Your task to perform on an android device: snooze an email in the gmail app Image 0: 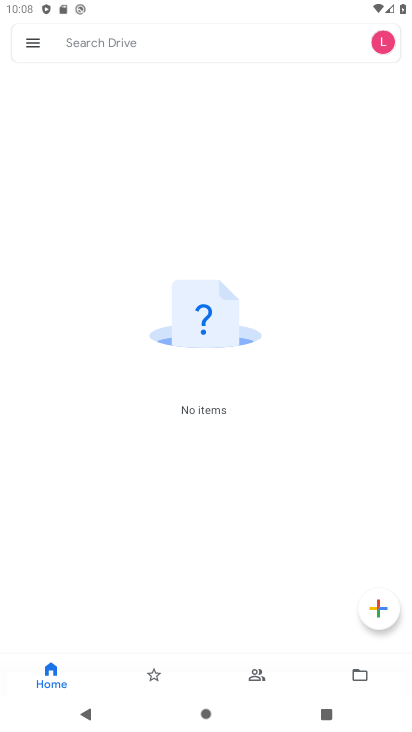
Step 0: press home button
Your task to perform on an android device: snooze an email in the gmail app Image 1: 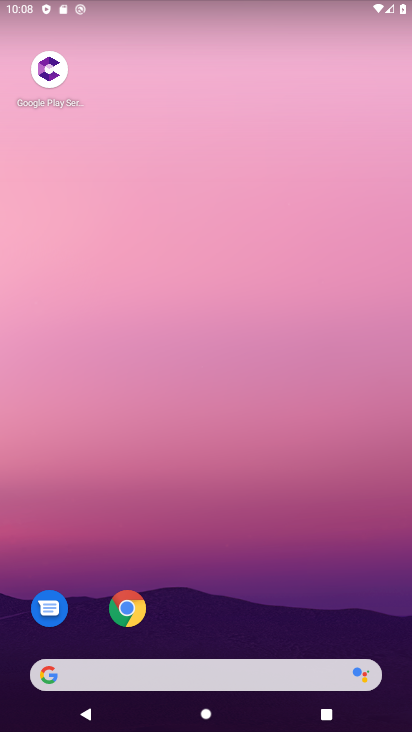
Step 1: drag from (246, 587) to (336, 34)
Your task to perform on an android device: snooze an email in the gmail app Image 2: 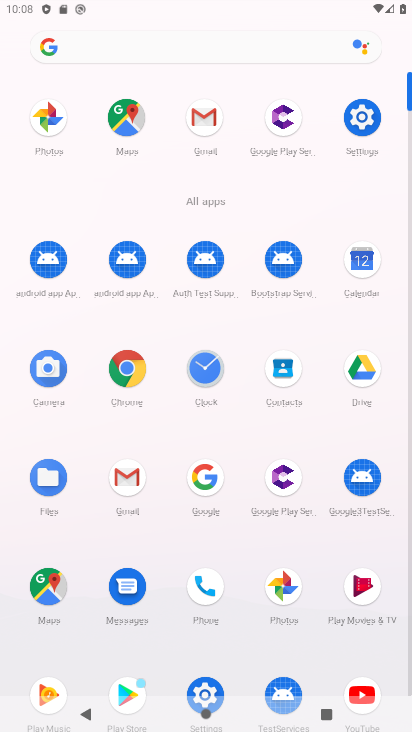
Step 2: click (129, 484)
Your task to perform on an android device: snooze an email in the gmail app Image 3: 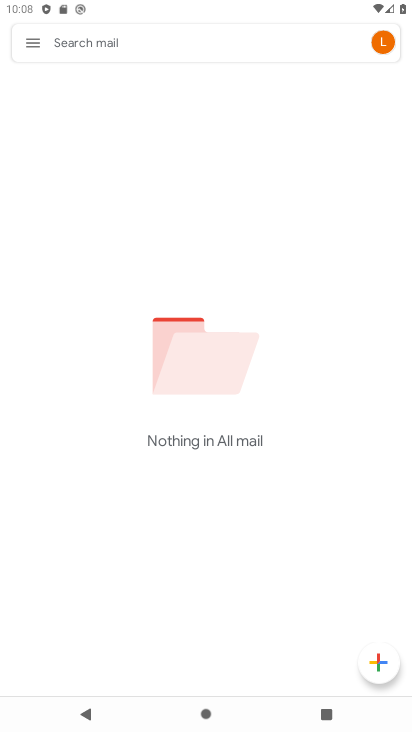
Step 3: click (29, 41)
Your task to perform on an android device: snooze an email in the gmail app Image 4: 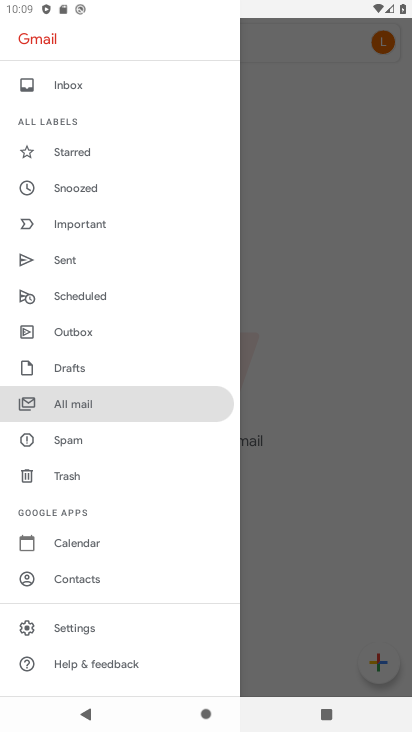
Step 4: click (97, 399)
Your task to perform on an android device: snooze an email in the gmail app Image 5: 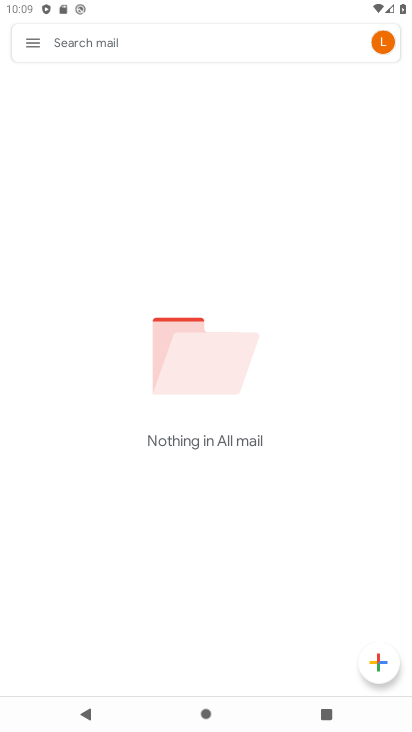
Step 5: task complete